Your task to perform on an android device: Find coffee shops on Maps Image 0: 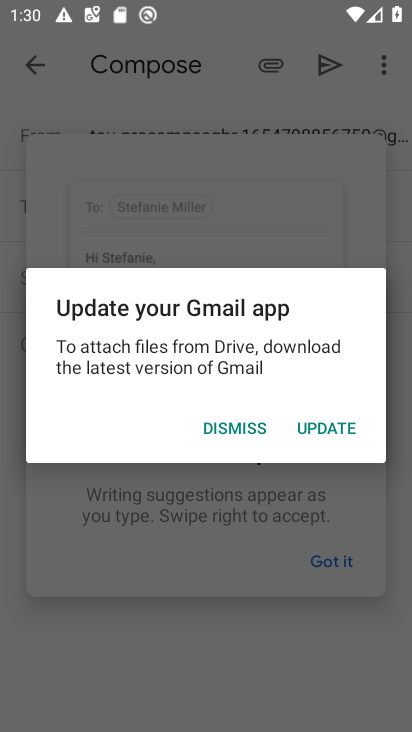
Step 0: click (208, 417)
Your task to perform on an android device: Find coffee shops on Maps Image 1: 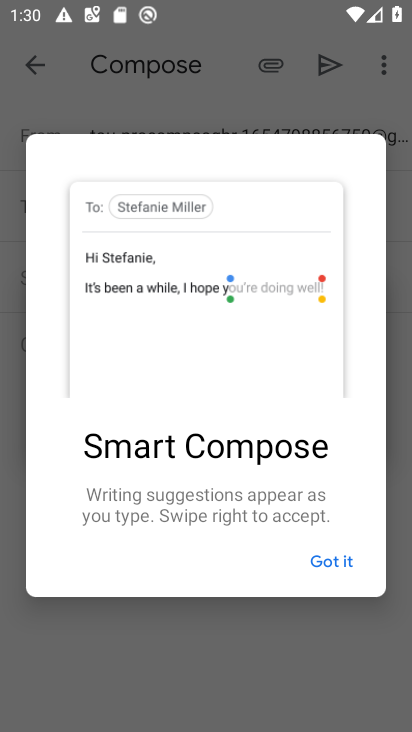
Step 1: press home button
Your task to perform on an android device: Find coffee shops on Maps Image 2: 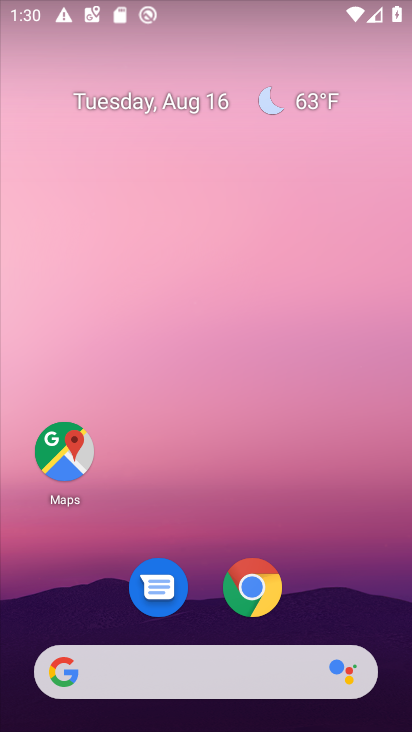
Step 2: drag from (174, 642) to (174, 249)
Your task to perform on an android device: Find coffee shops on Maps Image 3: 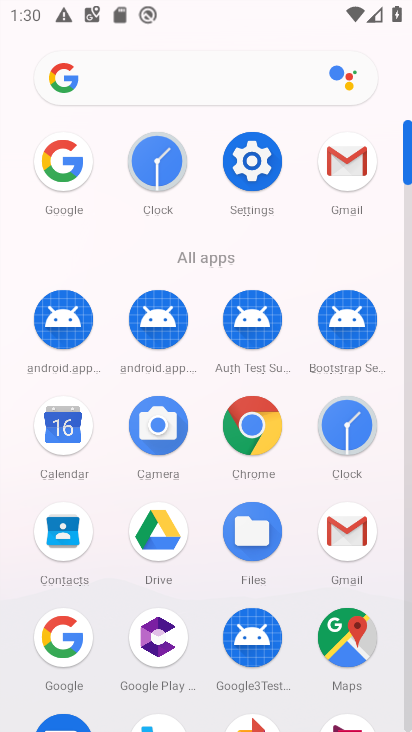
Step 3: click (354, 650)
Your task to perform on an android device: Find coffee shops on Maps Image 4: 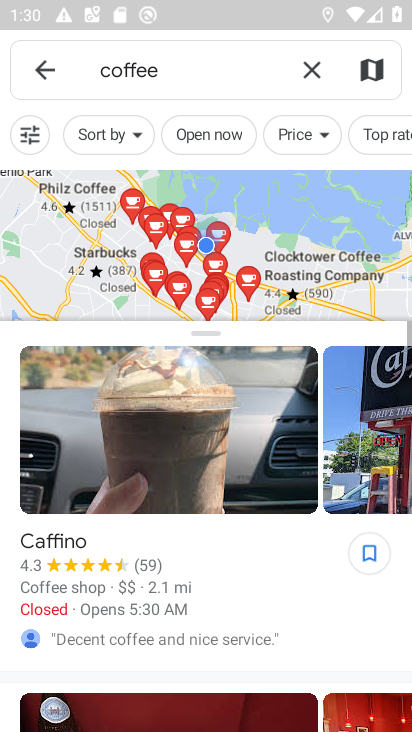
Step 4: task complete